Your task to perform on an android device: turn on the 24-hour format for clock Image 0: 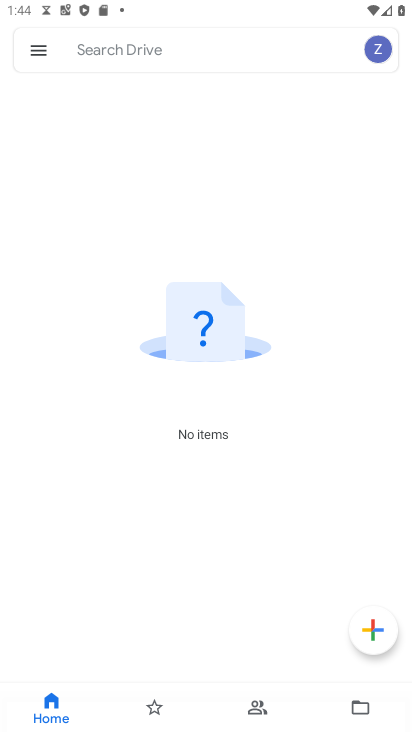
Step 0: press home button
Your task to perform on an android device: turn on the 24-hour format for clock Image 1: 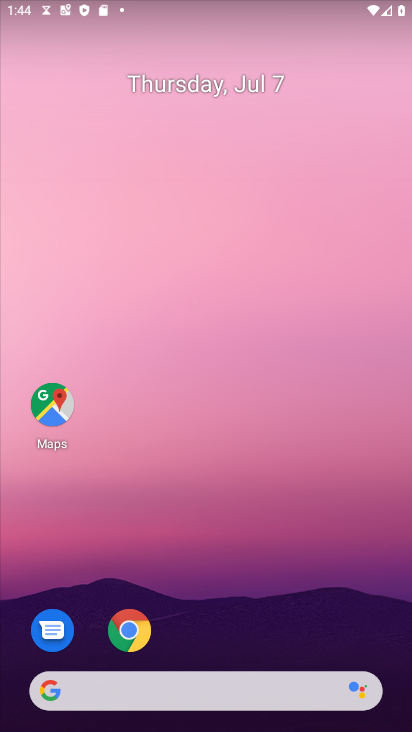
Step 1: drag from (273, 600) to (172, 68)
Your task to perform on an android device: turn on the 24-hour format for clock Image 2: 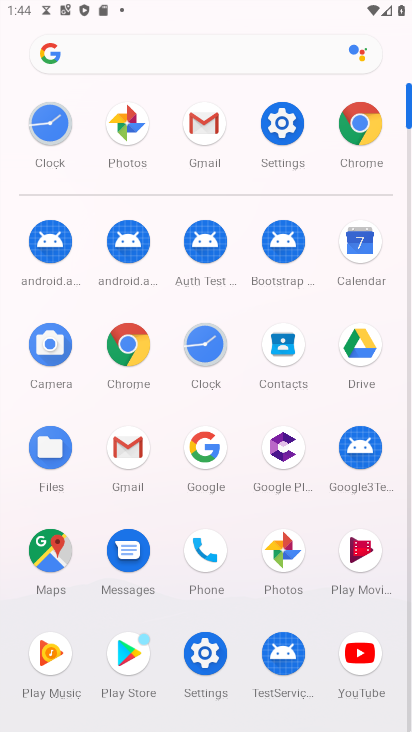
Step 2: click (55, 122)
Your task to perform on an android device: turn on the 24-hour format for clock Image 3: 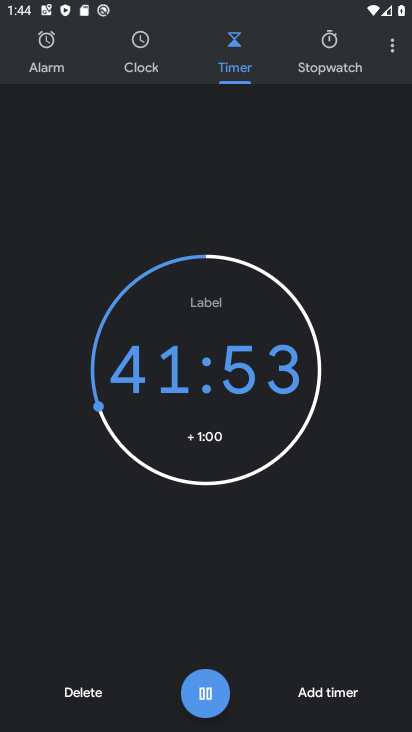
Step 3: click (395, 51)
Your task to perform on an android device: turn on the 24-hour format for clock Image 4: 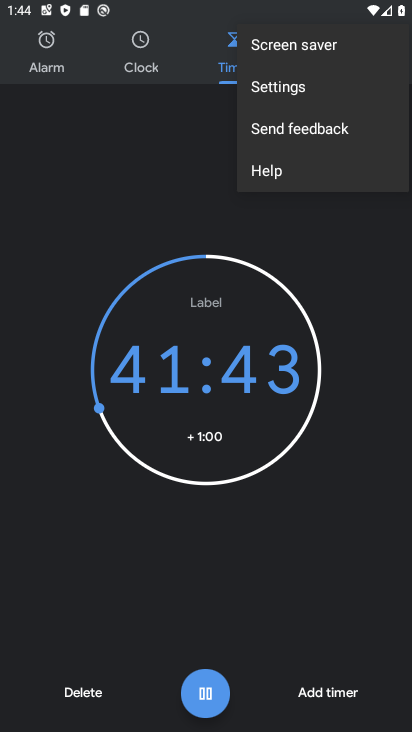
Step 4: click (330, 95)
Your task to perform on an android device: turn on the 24-hour format for clock Image 5: 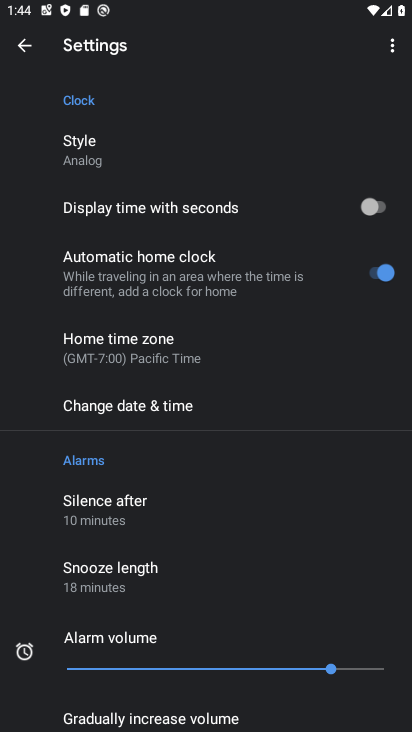
Step 5: click (312, 412)
Your task to perform on an android device: turn on the 24-hour format for clock Image 6: 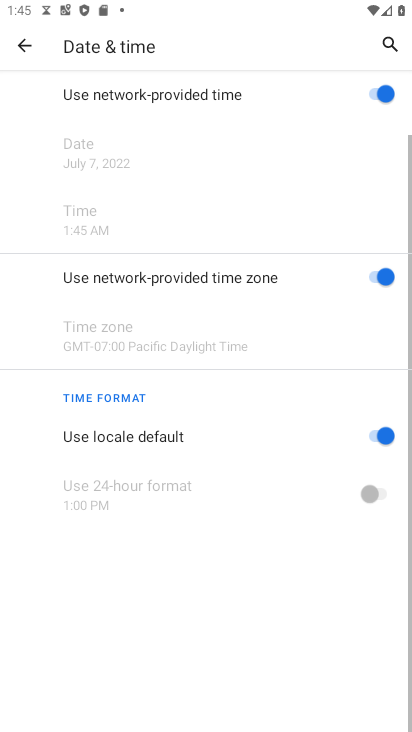
Step 6: click (376, 434)
Your task to perform on an android device: turn on the 24-hour format for clock Image 7: 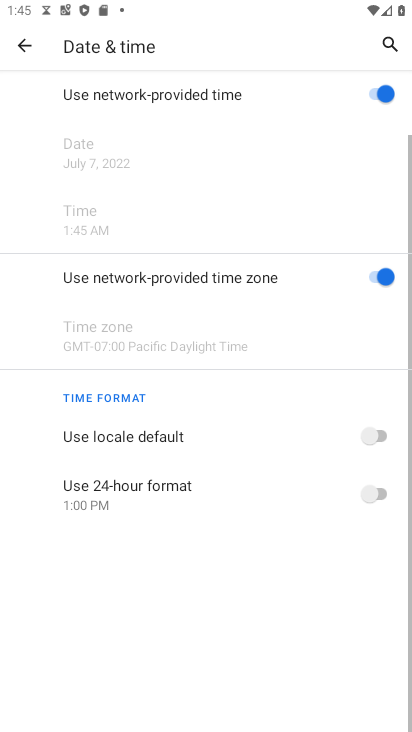
Step 7: click (376, 499)
Your task to perform on an android device: turn on the 24-hour format for clock Image 8: 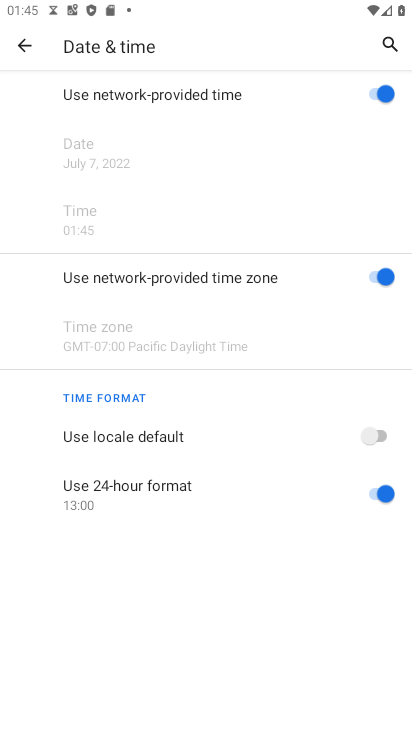
Step 8: task complete